Your task to perform on an android device: Open the phone app and click the voicemail tab. Image 0: 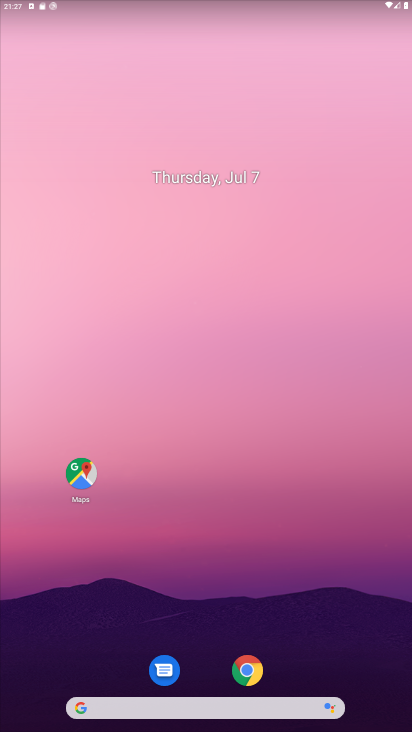
Step 0: press home button
Your task to perform on an android device: Open the phone app and click the voicemail tab. Image 1: 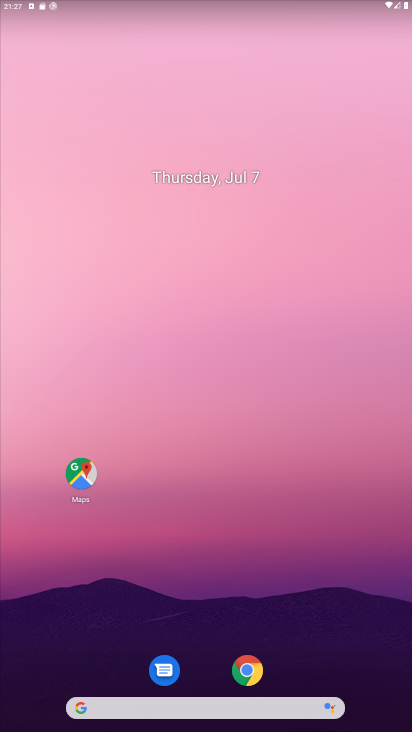
Step 1: task complete